Your task to perform on an android device: delete the emails in spam in the gmail app Image 0: 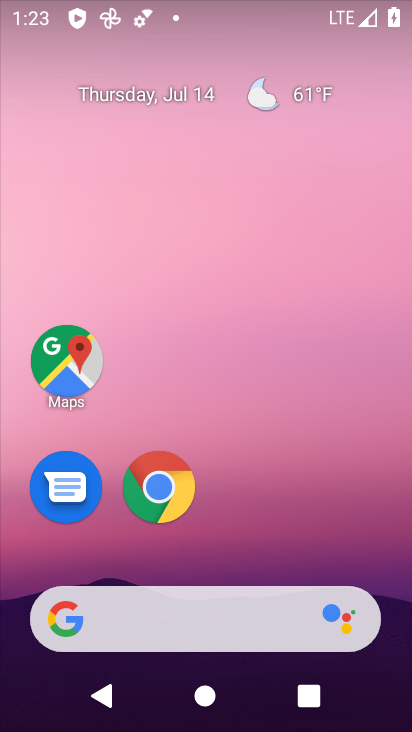
Step 0: drag from (287, 548) to (330, 216)
Your task to perform on an android device: delete the emails in spam in the gmail app Image 1: 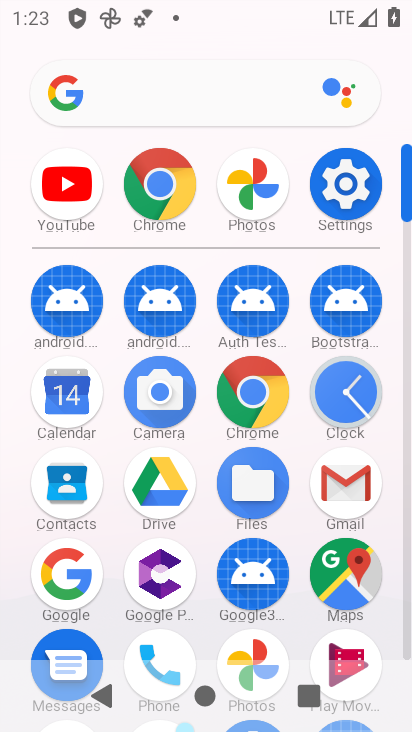
Step 1: click (346, 484)
Your task to perform on an android device: delete the emails in spam in the gmail app Image 2: 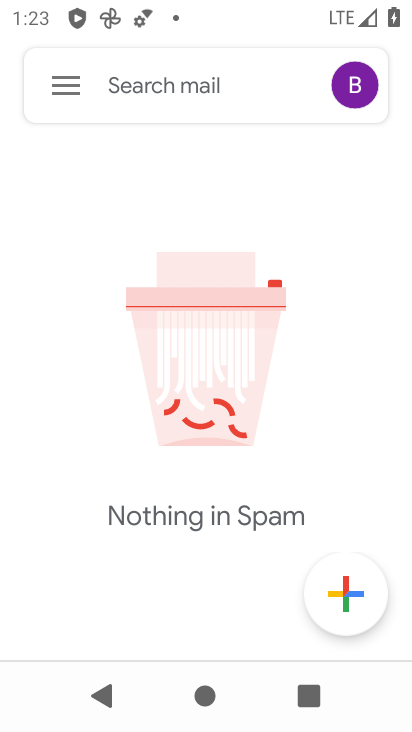
Step 2: click (65, 92)
Your task to perform on an android device: delete the emails in spam in the gmail app Image 3: 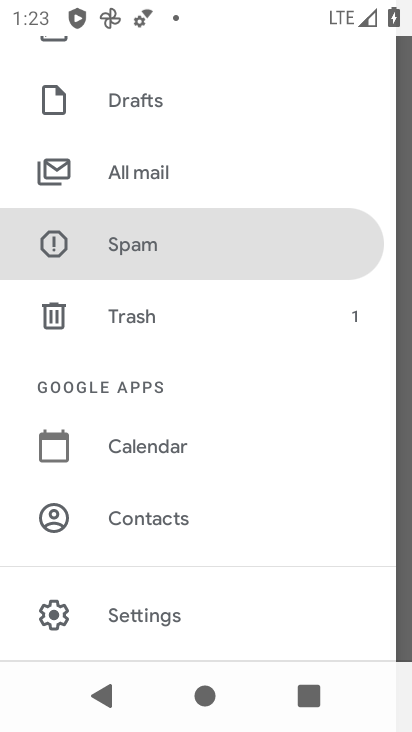
Step 3: drag from (292, 323) to (296, 504)
Your task to perform on an android device: delete the emails in spam in the gmail app Image 4: 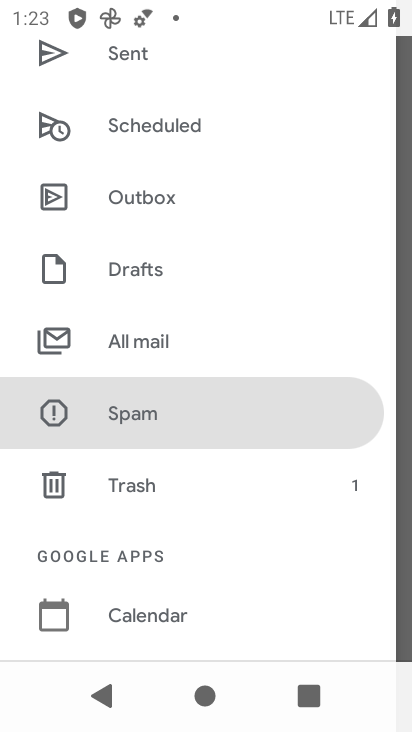
Step 4: drag from (278, 236) to (284, 372)
Your task to perform on an android device: delete the emails in spam in the gmail app Image 5: 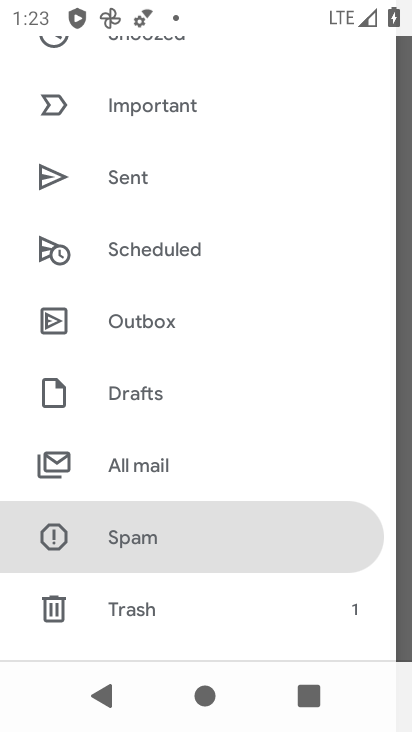
Step 5: click (235, 547)
Your task to perform on an android device: delete the emails in spam in the gmail app Image 6: 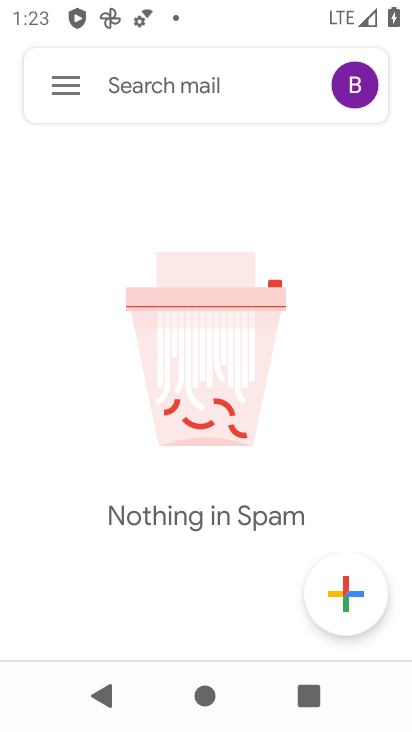
Step 6: task complete